Your task to perform on an android device: turn on translation in the chrome app Image 0: 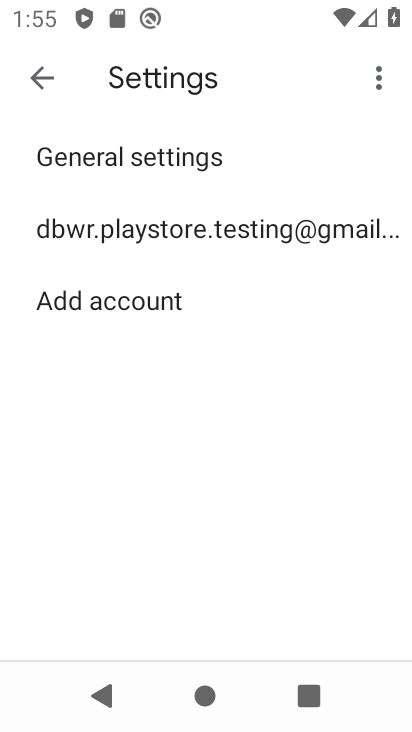
Step 0: press home button
Your task to perform on an android device: turn on translation in the chrome app Image 1: 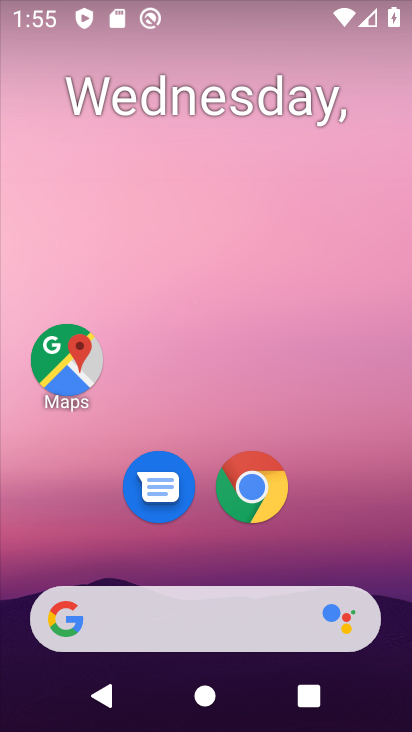
Step 1: click (251, 479)
Your task to perform on an android device: turn on translation in the chrome app Image 2: 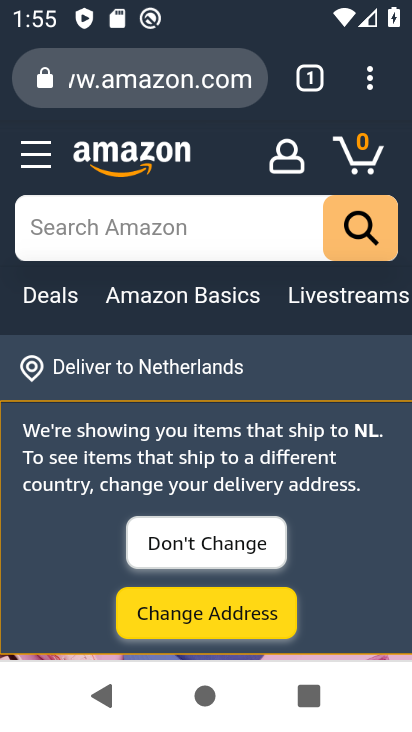
Step 2: click (376, 77)
Your task to perform on an android device: turn on translation in the chrome app Image 3: 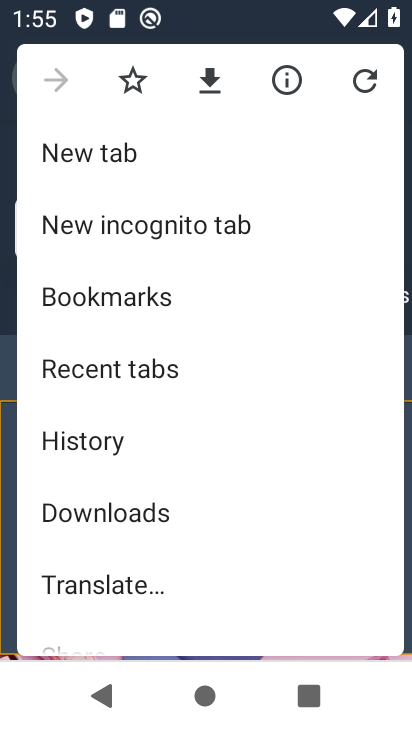
Step 3: drag from (135, 527) to (233, 112)
Your task to perform on an android device: turn on translation in the chrome app Image 4: 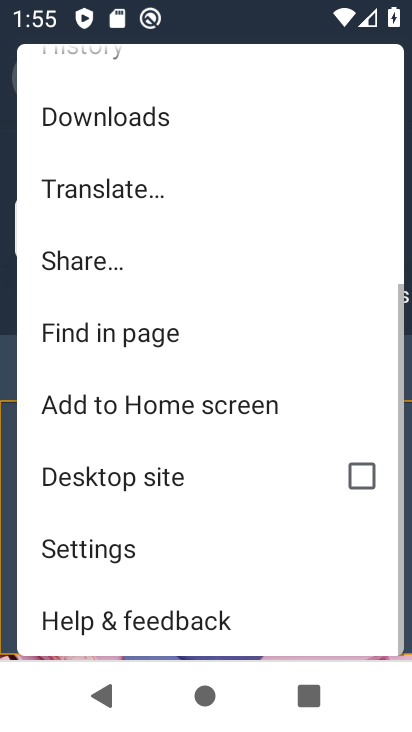
Step 4: click (124, 558)
Your task to perform on an android device: turn on translation in the chrome app Image 5: 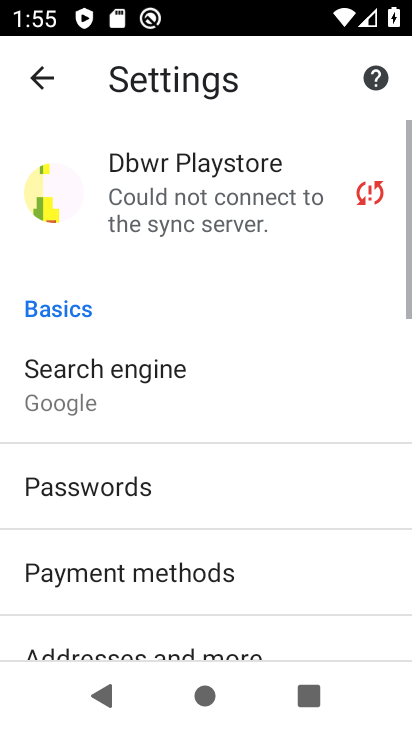
Step 5: drag from (190, 519) to (283, 200)
Your task to perform on an android device: turn on translation in the chrome app Image 6: 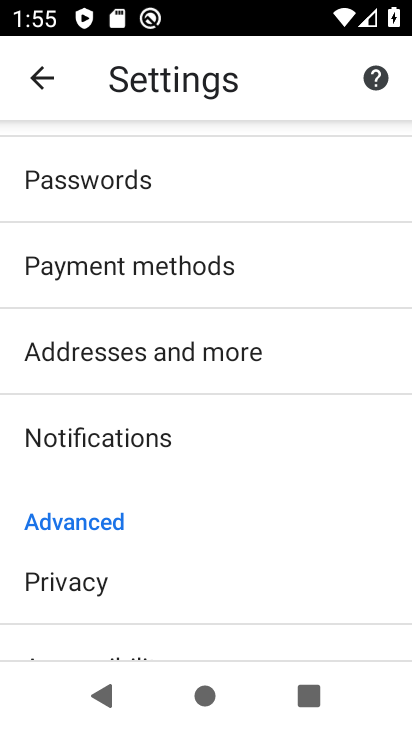
Step 6: drag from (158, 528) to (278, 158)
Your task to perform on an android device: turn on translation in the chrome app Image 7: 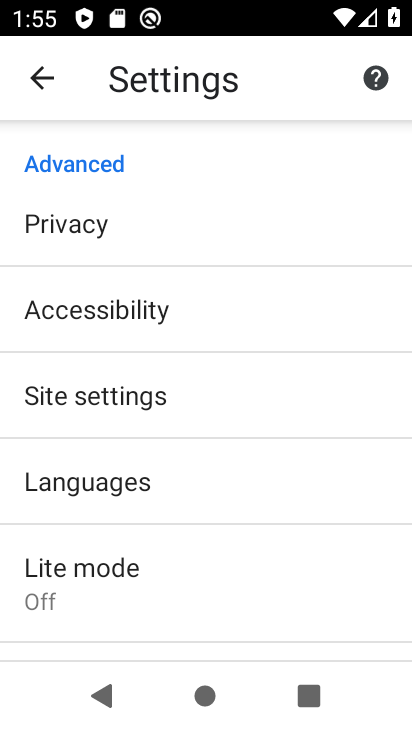
Step 7: click (126, 477)
Your task to perform on an android device: turn on translation in the chrome app Image 8: 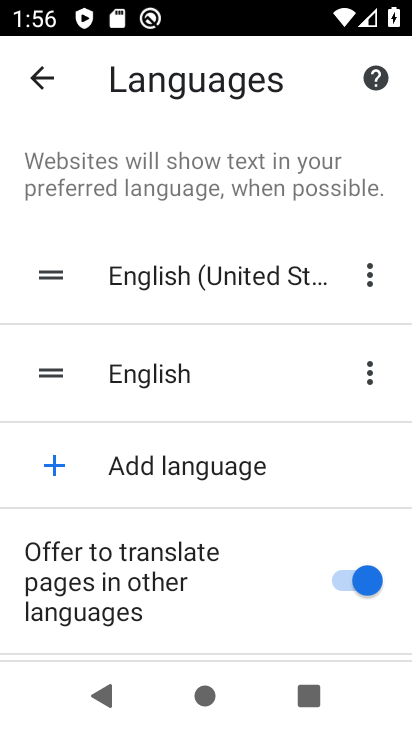
Step 8: task complete